Your task to perform on an android device: turn on javascript in the chrome app Image 0: 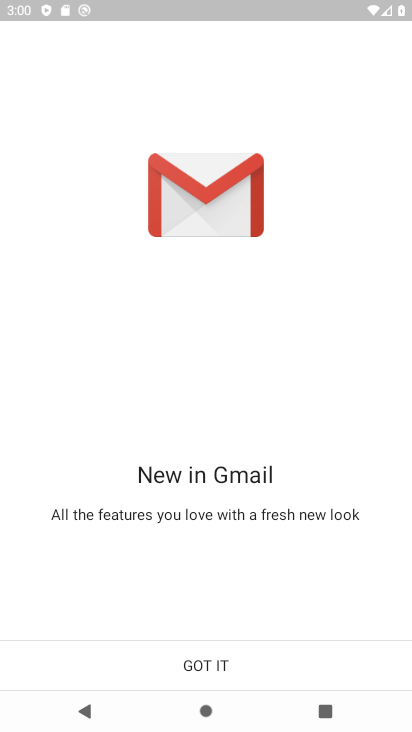
Step 0: press home button
Your task to perform on an android device: turn on javascript in the chrome app Image 1: 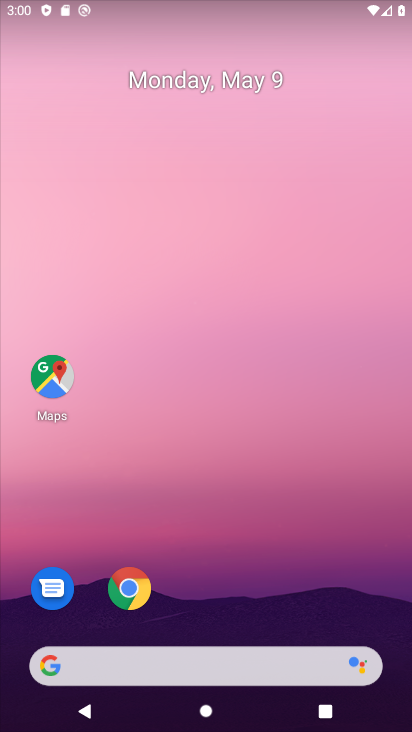
Step 1: click (132, 590)
Your task to perform on an android device: turn on javascript in the chrome app Image 2: 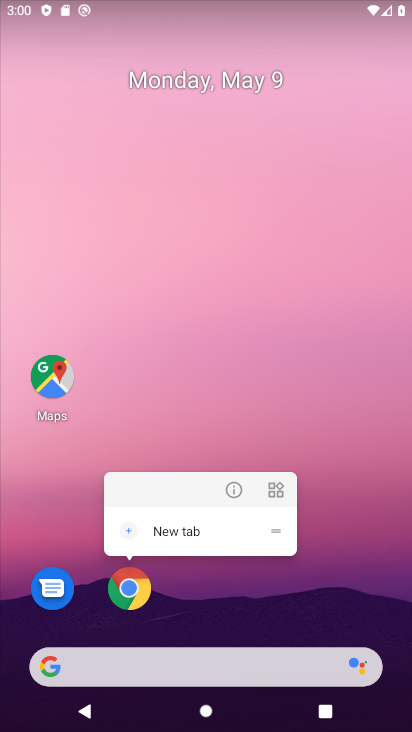
Step 2: click (132, 590)
Your task to perform on an android device: turn on javascript in the chrome app Image 3: 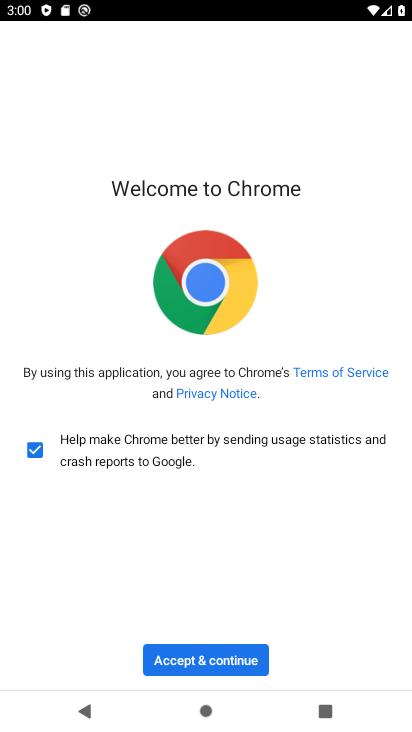
Step 3: click (229, 663)
Your task to perform on an android device: turn on javascript in the chrome app Image 4: 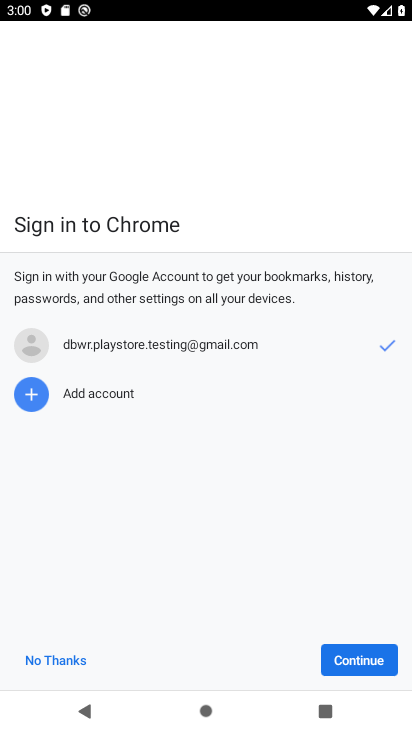
Step 4: click (341, 665)
Your task to perform on an android device: turn on javascript in the chrome app Image 5: 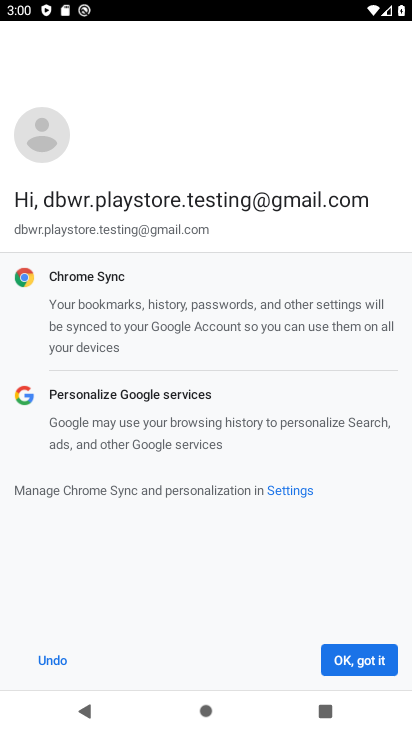
Step 5: click (355, 660)
Your task to perform on an android device: turn on javascript in the chrome app Image 6: 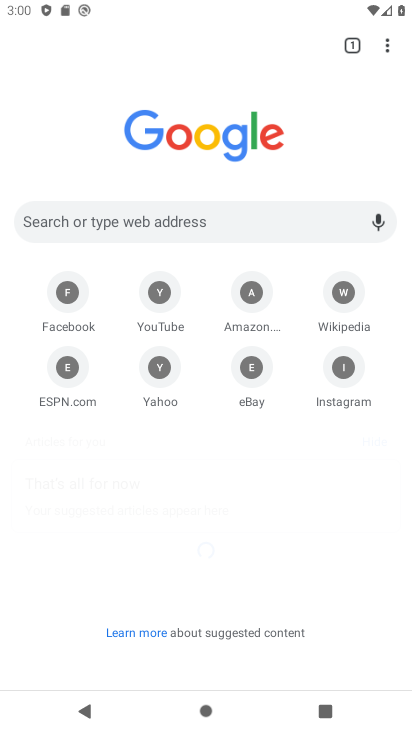
Step 6: click (384, 46)
Your task to perform on an android device: turn on javascript in the chrome app Image 7: 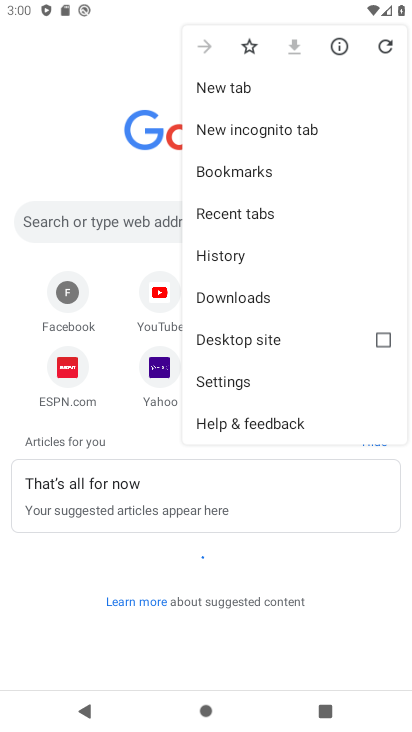
Step 7: click (226, 373)
Your task to perform on an android device: turn on javascript in the chrome app Image 8: 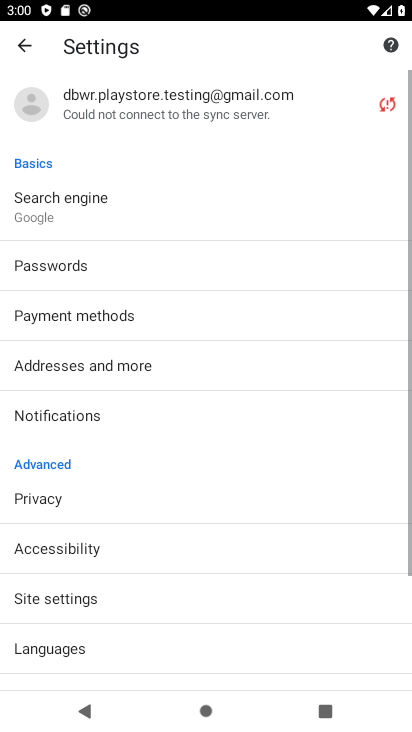
Step 8: click (42, 604)
Your task to perform on an android device: turn on javascript in the chrome app Image 9: 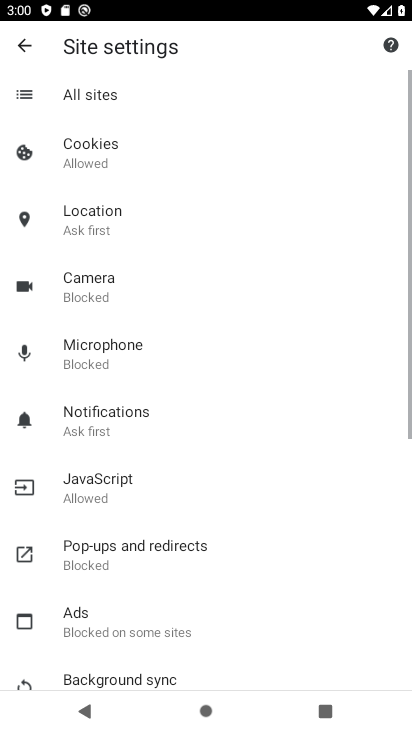
Step 9: click (135, 490)
Your task to perform on an android device: turn on javascript in the chrome app Image 10: 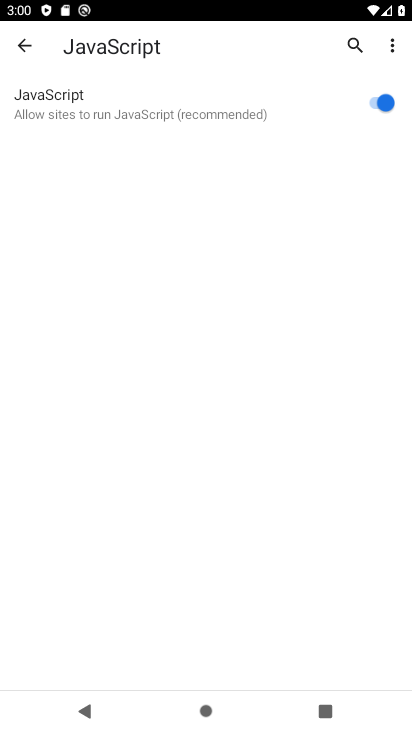
Step 10: task complete